Your task to perform on an android device: Show the shopping cart on bestbuy.com. Search for "razer naga" on bestbuy.com, select the first entry, and add it to the cart. Image 0: 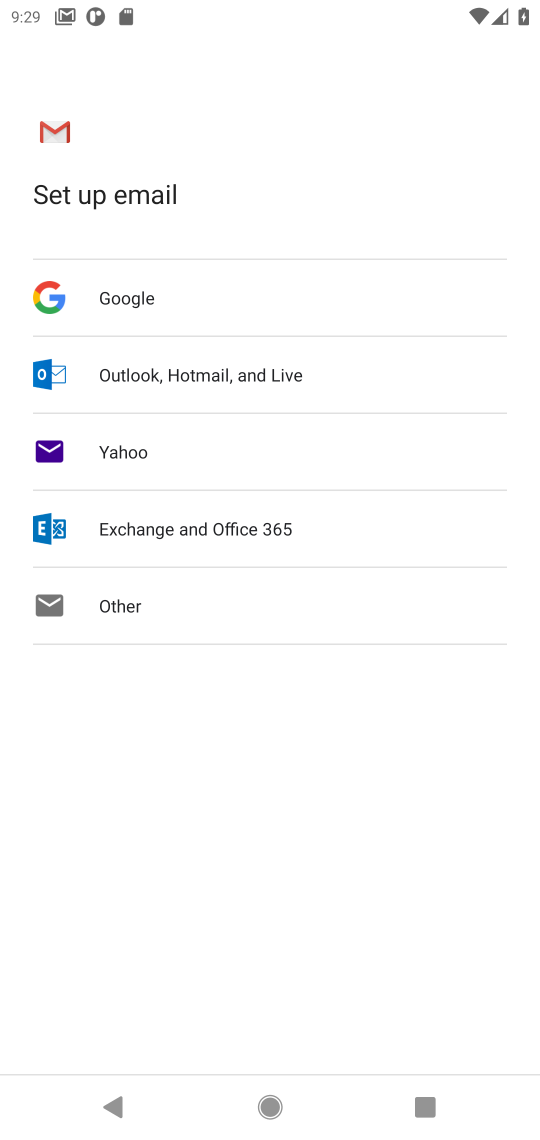
Step 0: press home button
Your task to perform on an android device: Show the shopping cart on bestbuy.com. Search for "razer naga" on bestbuy.com, select the first entry, and add it to the cart. Image 1: 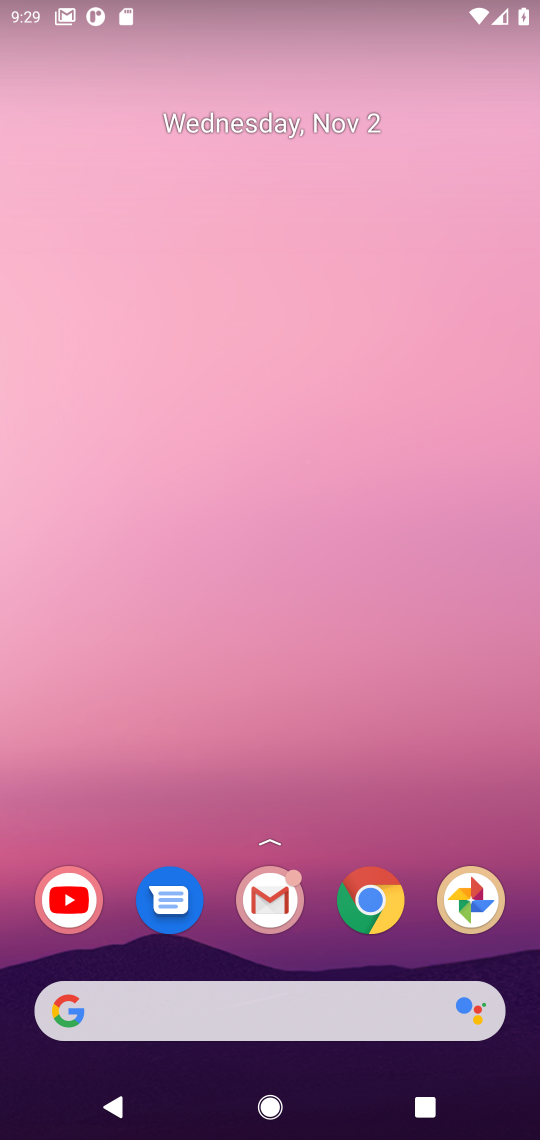
Step 1: click (362, 932)
Your task to perform on an android device: Show the shopping cart on bestbuy.com. Search for "razer naga" on bestbuy.com, select the first entry, and add it to the cart. Image 2: 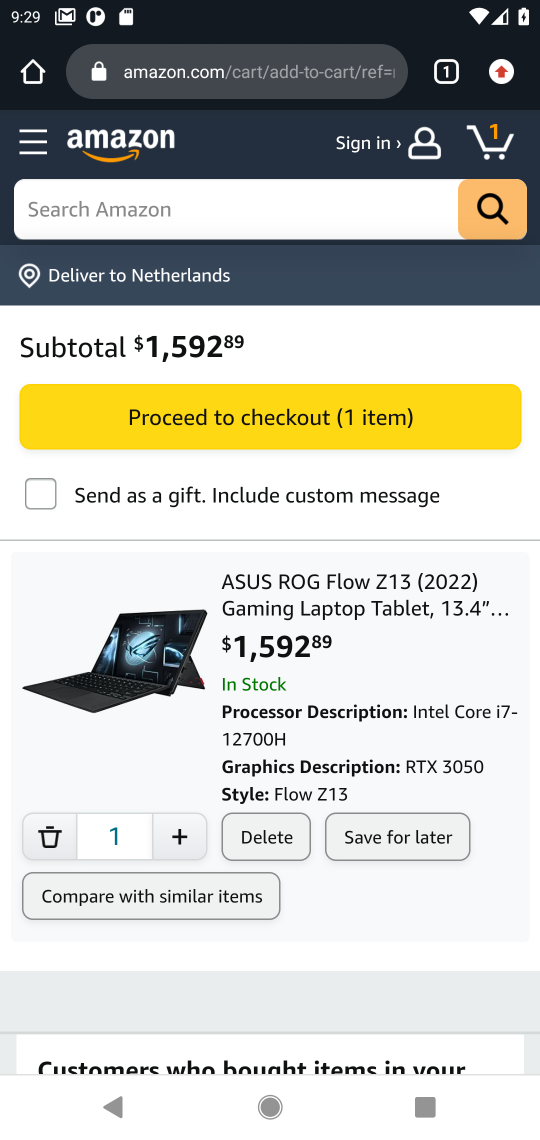
Step 2: click (240, 212)
Your task to perform on an android device: Show the shopping cart on bestbuy.com. Search for "razer naga" on bestbuy.com, select the first entry, and add it to the cart. Image 3: 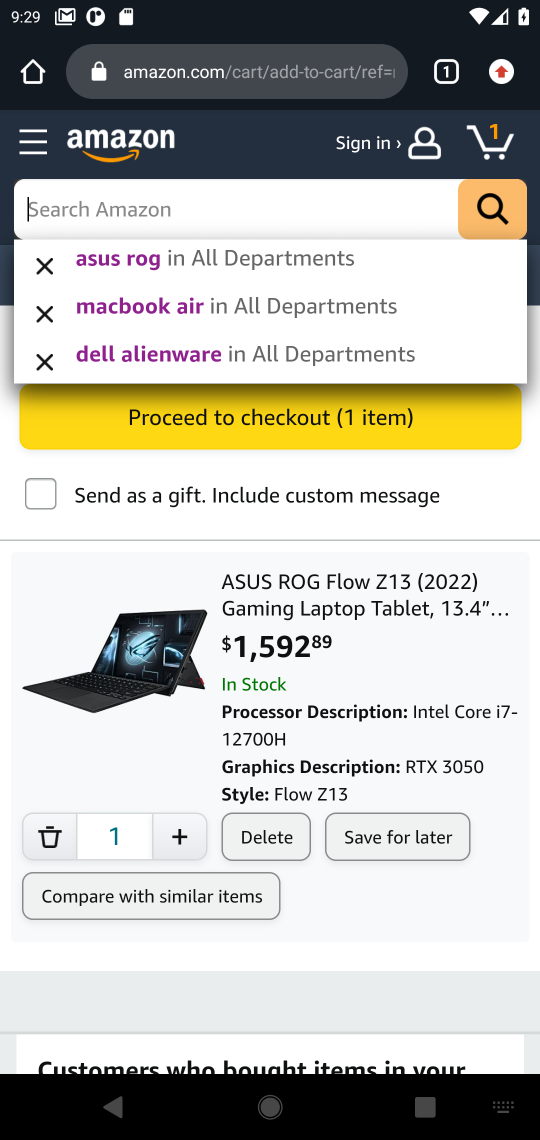
Step 3: click (285, 86)
Your task to perform on an android device: Show the shopping cart on bestbuy.com. Search for "razer naga" on bestbuy.com, select the first entry, and add it to the cart. Image 4: 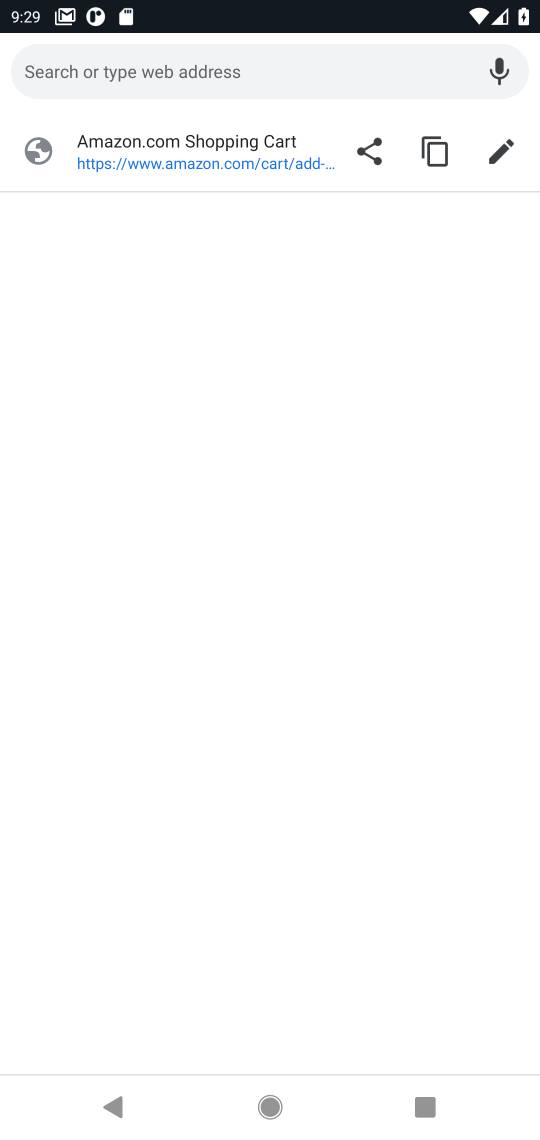
Step 4: type "bestbuy"
Your task to perform on an android device: Show the shopping cart on bestbuy.com. Search for "razer naga" on bestbuy.com, select the first entry, and add it to the cart. Image 5: 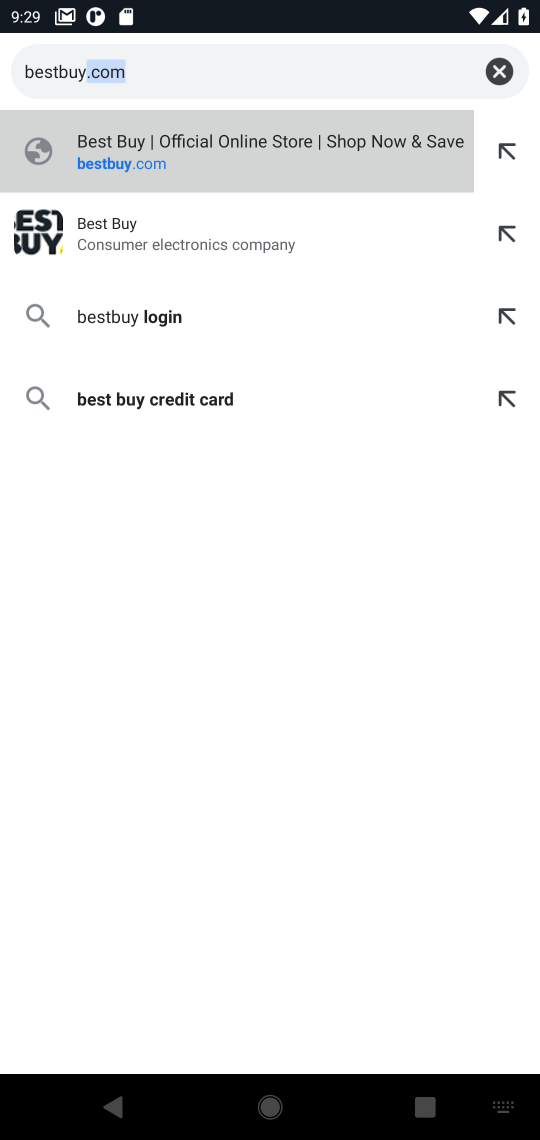
Step 5: click (98, 169)
Your task to perform on an android device: Show the shopping cart on bestbuy.com. Search for "razer naga" on bestbuy.com, select the first entry, and add it to the cart. Image 6: 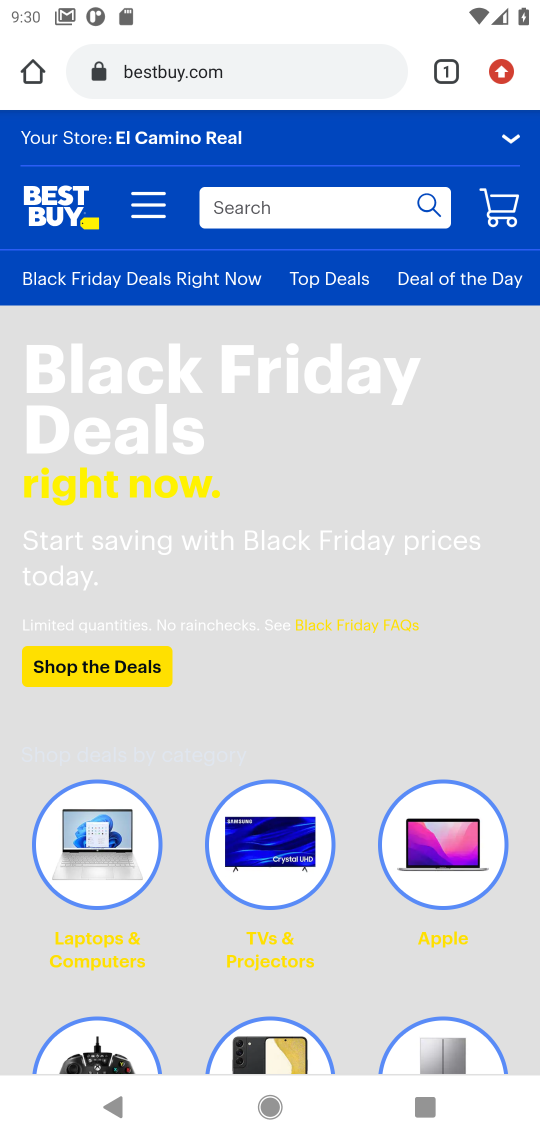
Step 6: click (315, 197)
Your task to perform on an android device: Show the shopping cart on bestbuy.com. Search for "razer naga" on bestbuy.com, select the first entry, and add it to the cart. Image 7: 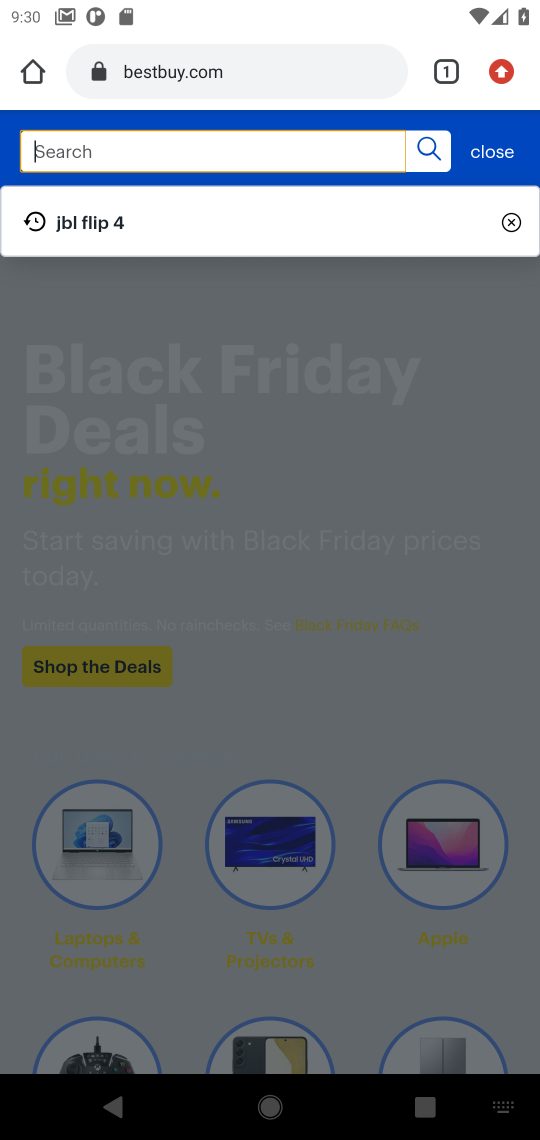
Step 7: click (508, 153)
Your task to perform on an android device: Show the shopping cart on bestbuy.com. Search for "razer naga" on bestbuy.com, select the first entry, and add it to the cart. Image 8: 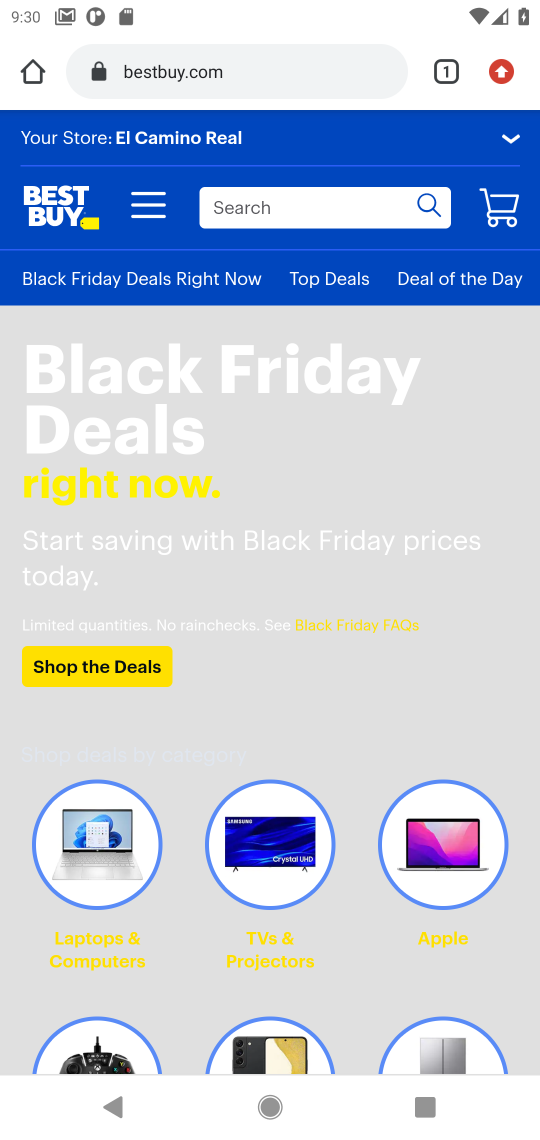
Step 8: click (505, 211)
Your task to perform on an android device: Show the shopping cart on bestbuy.com. Search for "razer naga" on bestbuy.com, select the first entry, and add it to the cart. Image 9: 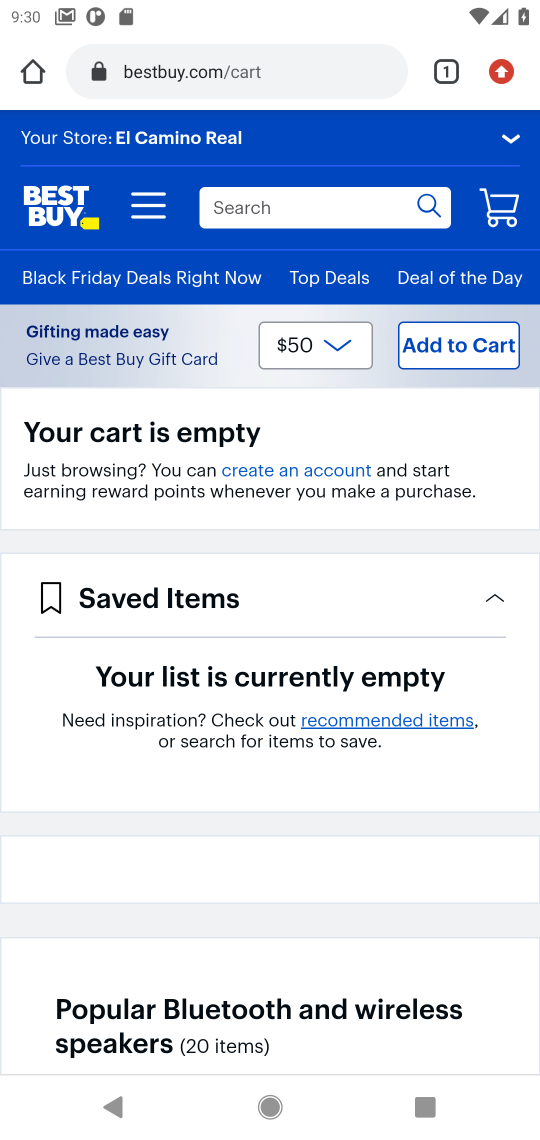
Step 9: click (364, 218)
Your task to perform on an android device: Show the shopping cart on bestbuy.com. Search for "razer naga" on bestbuy.com, select the first entry, and add it to the cart. Image 10: 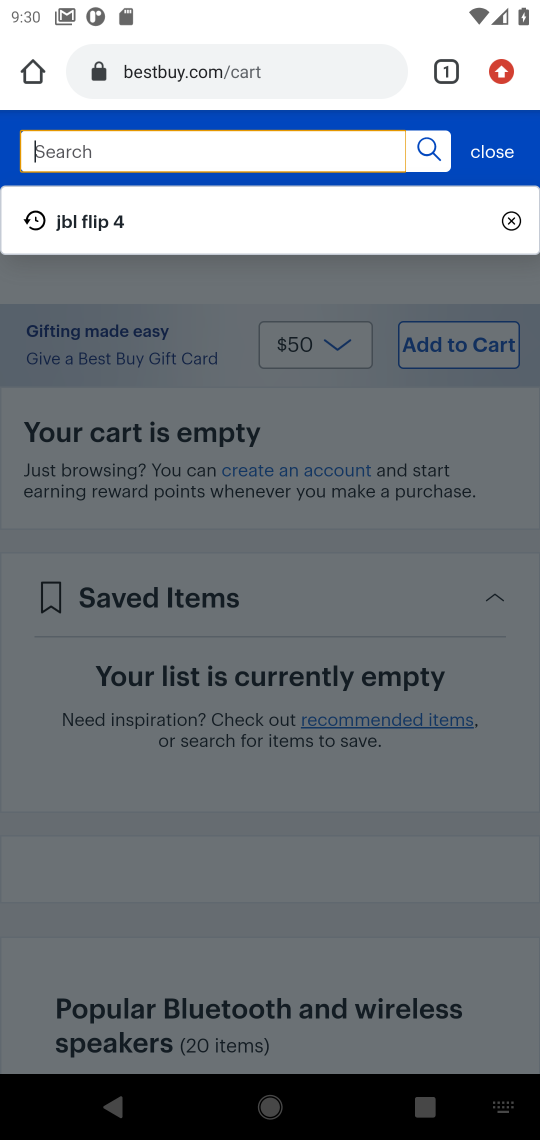
Step 10: type "razer naga"
Your task to perform on an android device: Show the shopping cart on bestbuy.com. Search for "razer naga" on bestbuy.com, select the first entry, and add it to the cart. Image 11: 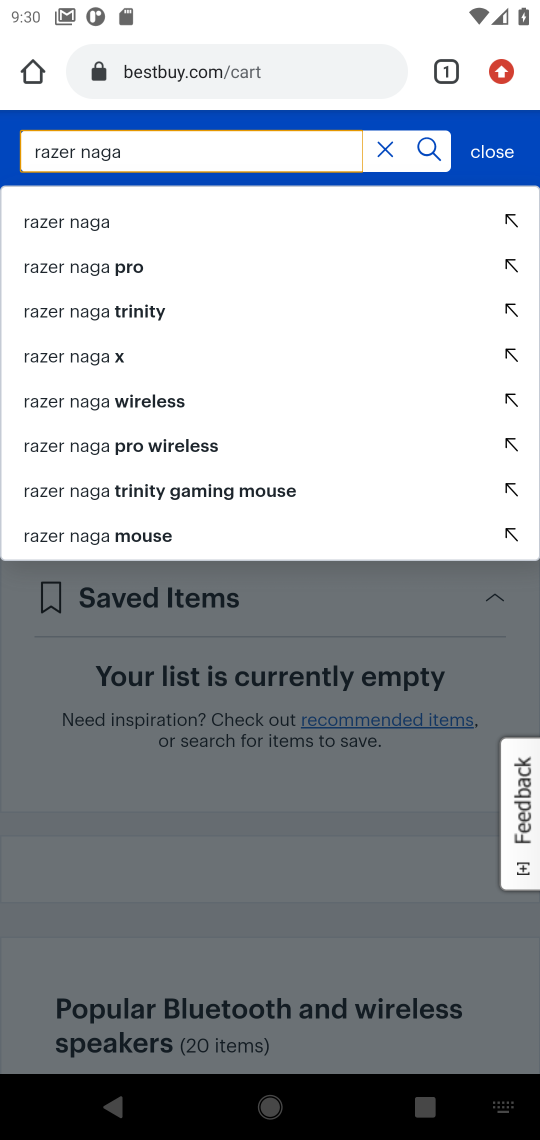
Step 11: click (425, 163)
Your task to perform on an android device: Show the shopping cart on bestbuy.com. Search for "razer naga" on bestbuy.com, select the first entry, and add it to the cart. Image 12: 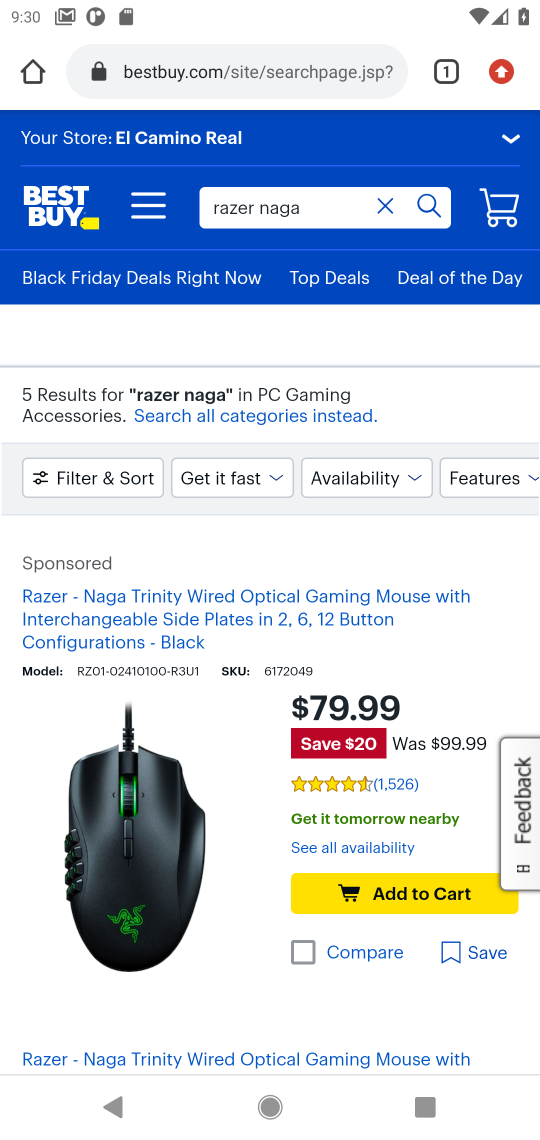
Step 12: click (438, 890)
Your task to perform on an android device: Show the shopping cart on bestbuy.com. Search for "razer naga" on bestbuy.com, select the first entry, and add it to the cart. Image 13: 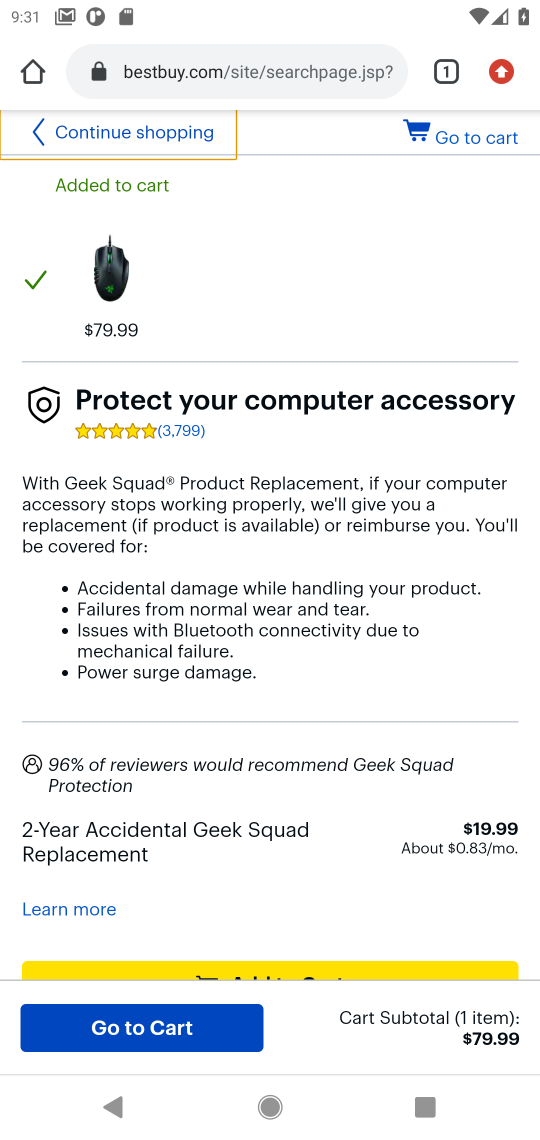
Step 13: task complete